Your task to perform on an android device: Open notification settings Image 0: 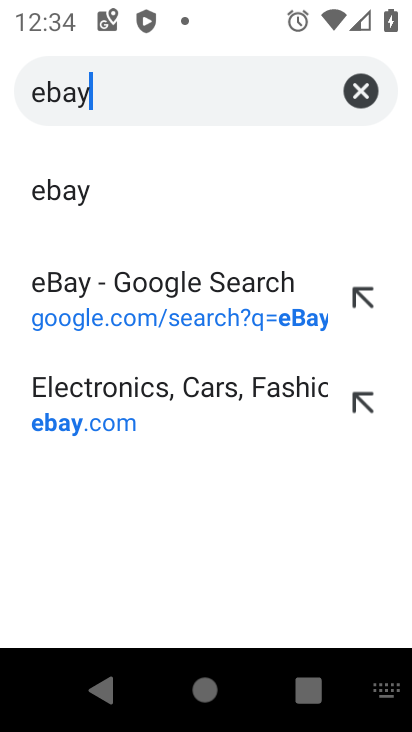
Step 0: press home button
Your task to perform on an android device: Open notification settings Image 1: 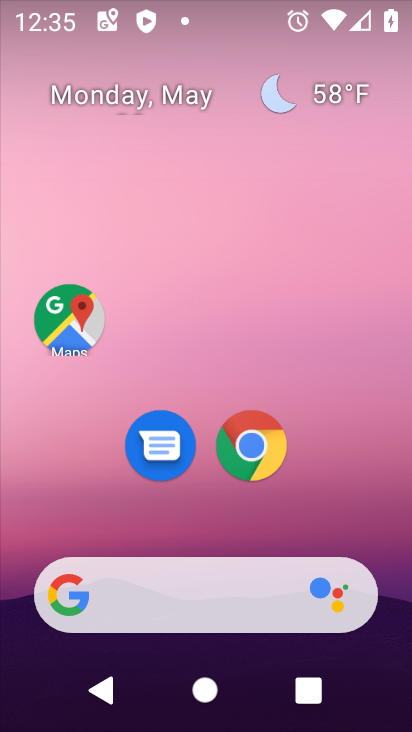
Step 1: drag from (209, 530) to (207, 64)
Your task to perform on an android device: Open notification settings Image 2: 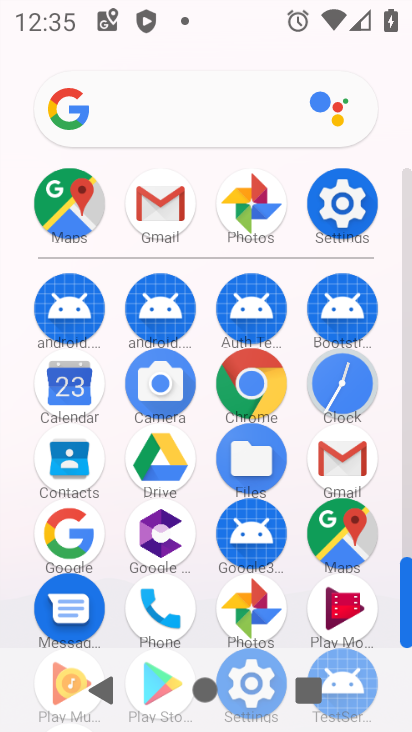
Step 2: click (343, 199)
Your task to perform on an android device: Open notification settings Image 3: 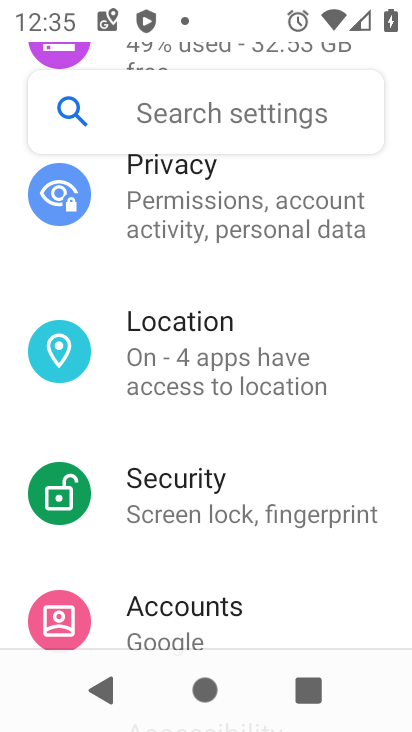
Step 3: drag from (219, 169) to (228, 679)
Your task to perform on an android device: Open notification settings Image 4: 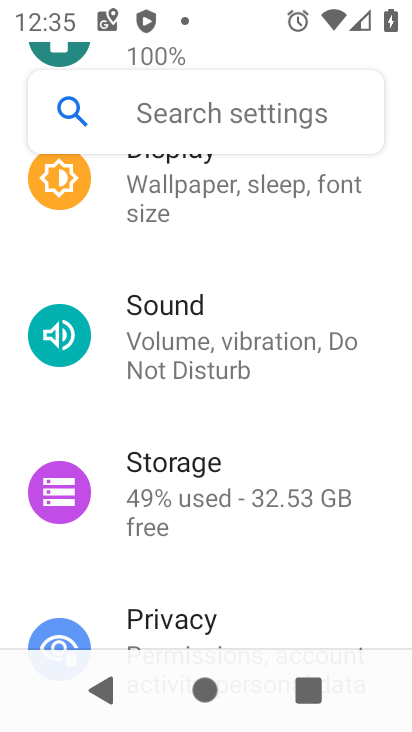
Step 4: drag from (231, 168) to (236, 730)
Your task to perform on an android device: Open notification settings Image 5: 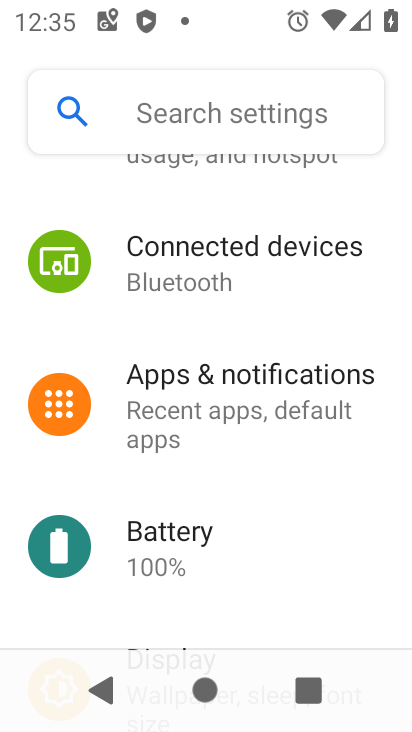
Step 5: click (270, 392)
Your task to perform on an android device: Open notification settings Image 6: 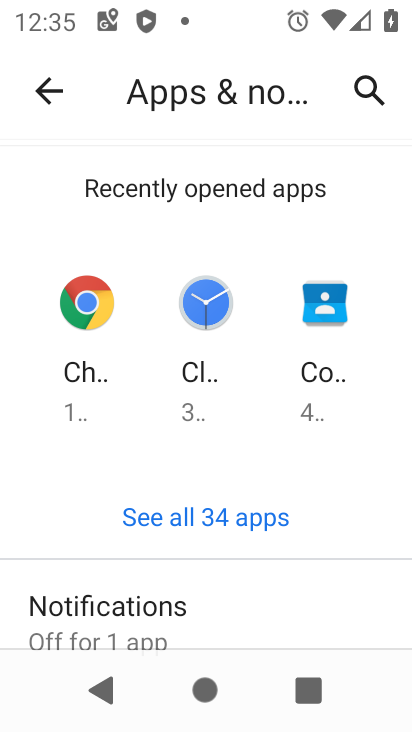
Step 6: click (207, 617)
Your task to perform on an android device: Open notification settings Image 7: 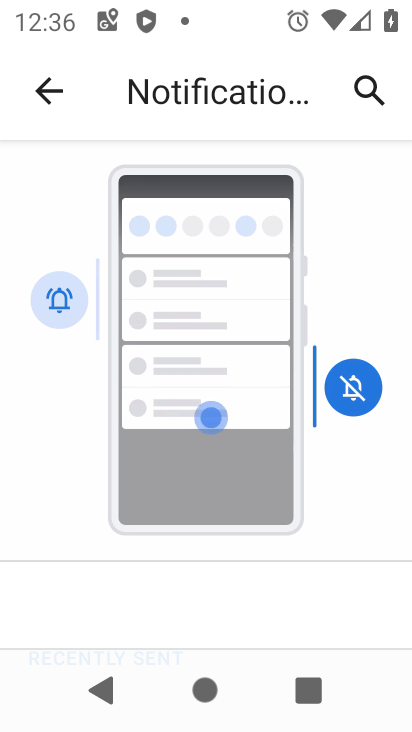
Step 7: drag from (206, 467) to (206, 39)
Your task to perform on an android device: Open notification settings Image 8: 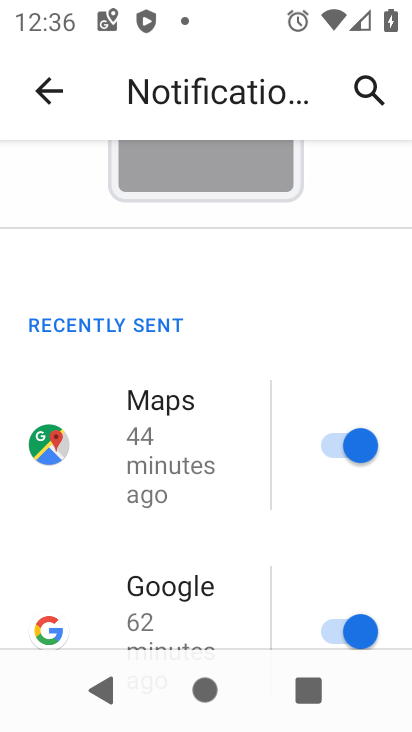
Step 8: drag from (232, 605) to (211, 97)
Your task to perform on an android device: Open notification settings Image 9: 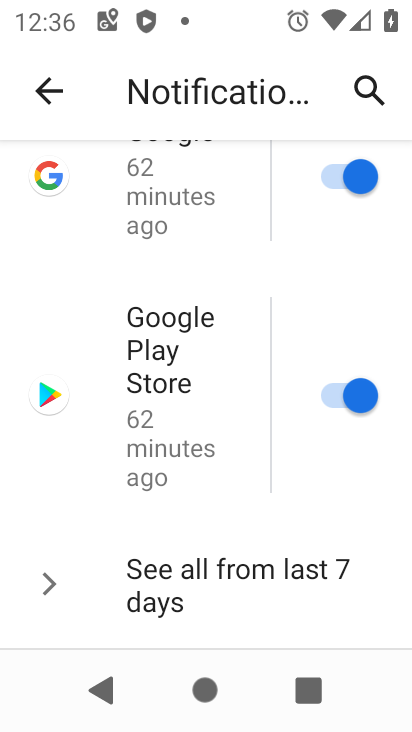
Step 9: drag from (240, 616) to (238, 103)
Your task to perform on an android device: Open notification settings Image 10: 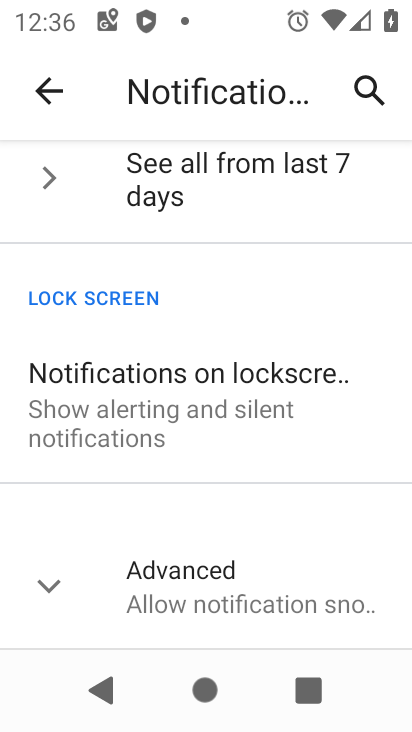
Step 10: click (46, 577)
Your task to perform on an android device: Open notification settings Image 11: 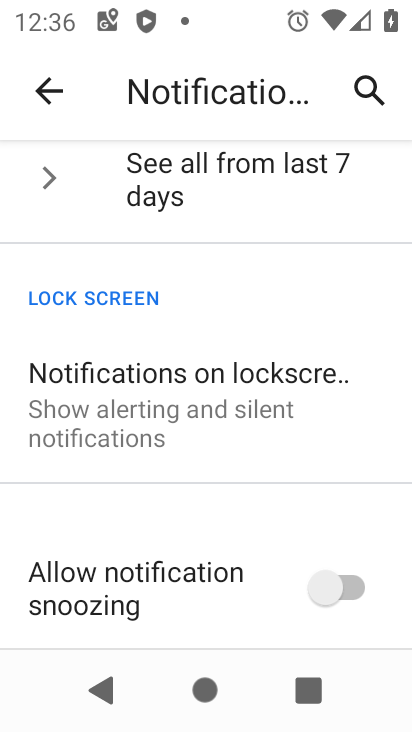
Step 11: task complete